Your task to perform on an android device: Open display settings Image 0: 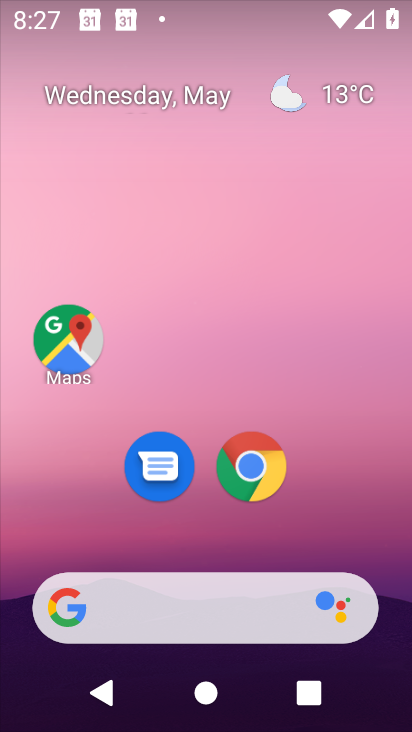
Step 0: press home button
Your task to perform on an android device: Open display settings Image 1: 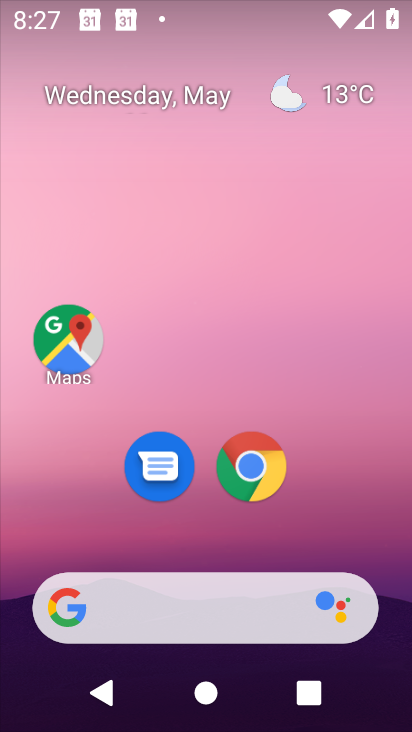
Step 1: drag from (211, 533) to (207, 123)
Your task to perform on an android device: Open display settings Image 2: 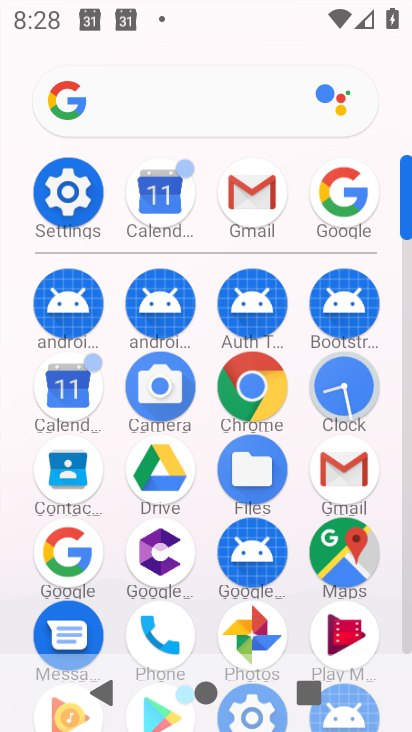
Step 2: click (70, 184)
Your task to perform on an android device: Open display settings Image 3: 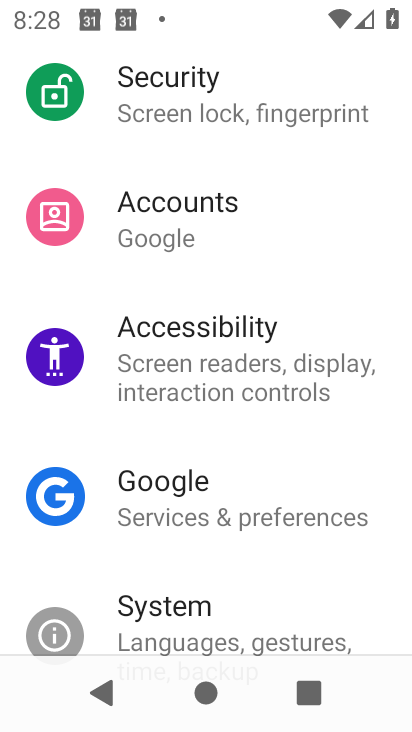
Step 3: drag from (217, 148) to (218, 617)
Your task to perform on an android device: Open display settings Image 4: 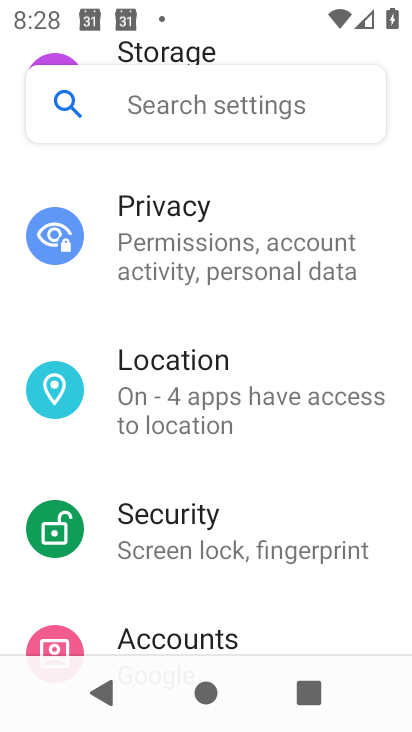
Step 4: drag from (224, 193) to (241, 629)
Your task to perform on an android device: Open display settings Image 5: 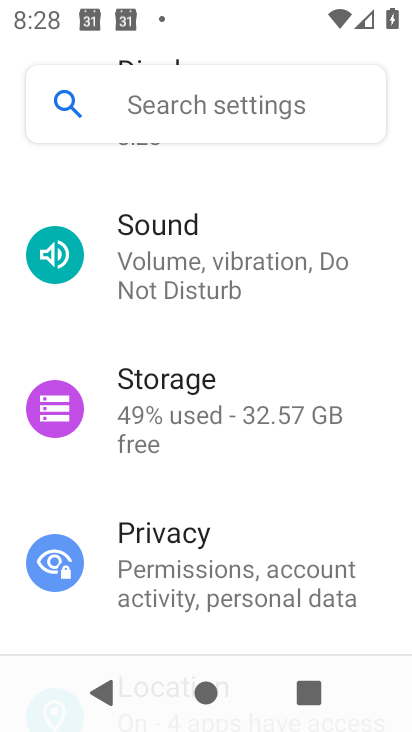
Step 5: drag from (211, 220) to (200, 631)
Your task to perform on an android device: Open display settings Image 6: 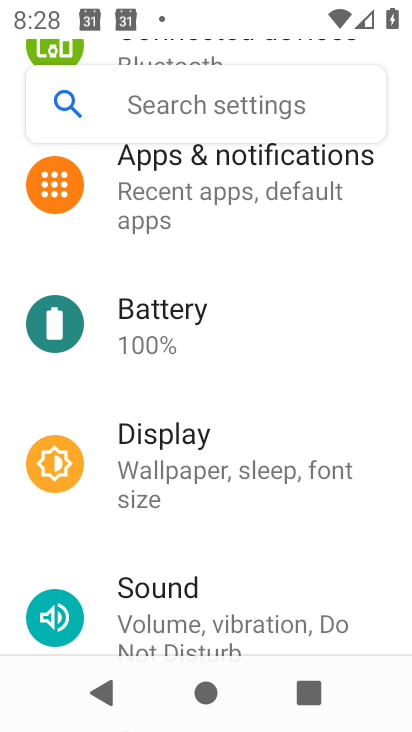
Step 6: click (219, 438)
Your task to perform on an android device: Open display settings Image 7: 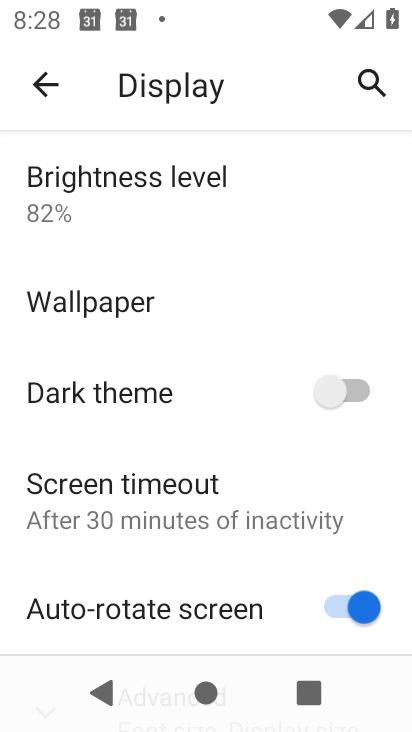
Step 7: drag from (208, 586) to (229, 137)
Your task to perform on an android device: Open display settings Image 8: 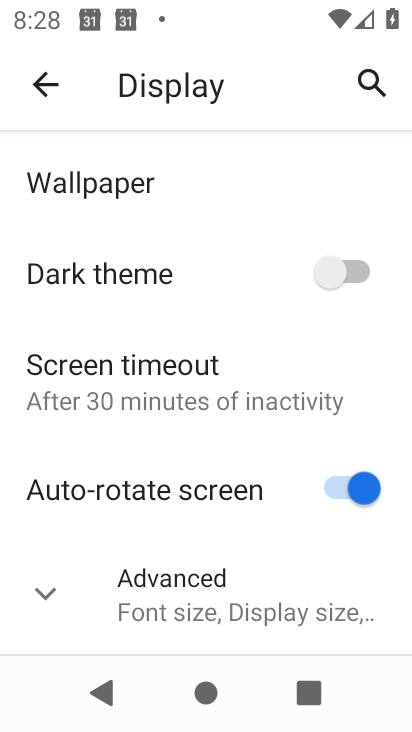
Step 8: click (42, 581)
Your task to perform on an android device: Open display settings Image 9: 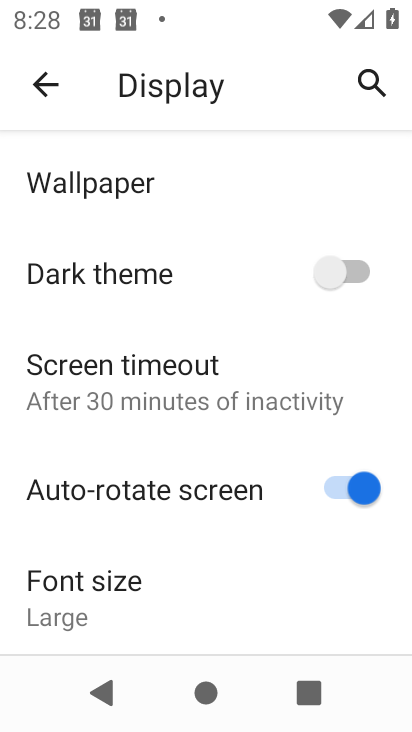
Step 9: drag from (156, 610) to (174, 353)
Your task to perform on an android device: Open display settings Image 10: 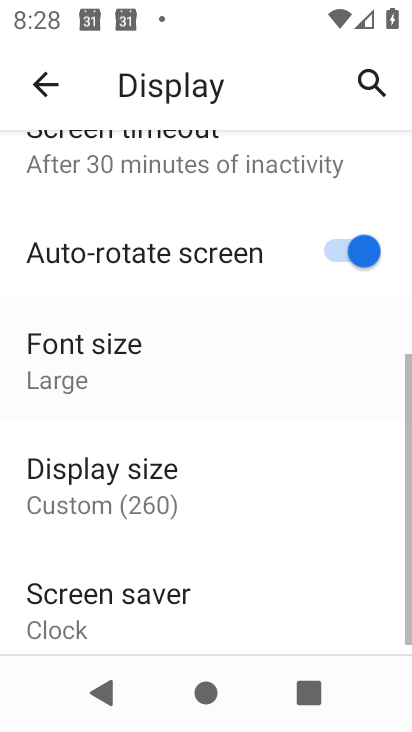
Step 10: click (177, 137)
Your task to perform on an android device: Open display settings Image 11: 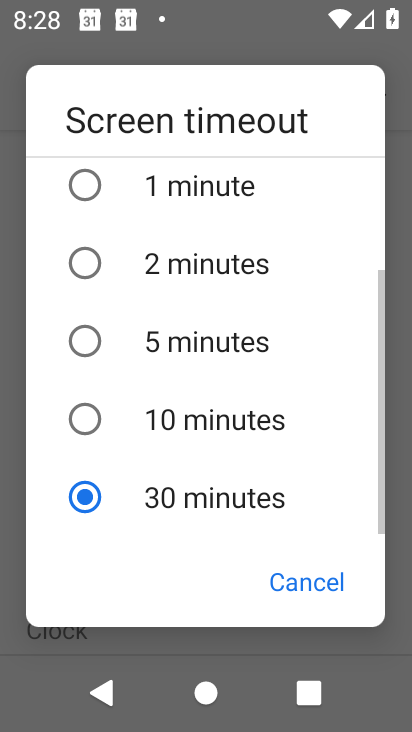
Step 11: click (287, 577)
Your task to perform on an android device: Open display settings Image 12: 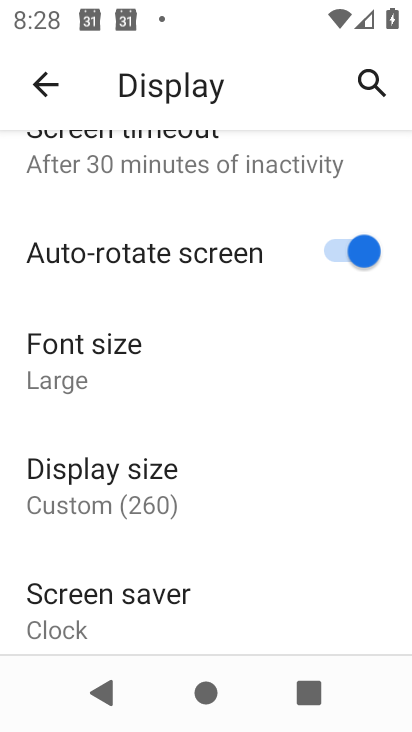
Step 12: task complete